Your task to perform on an android device: Open Google Chrome and open the bookmarks view Image 0: 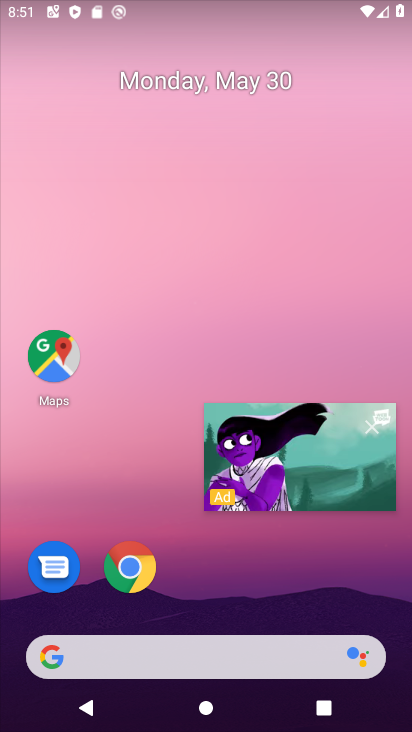
Step 0: click (369, 426)
Your task to perform on an android device: Open Google Chrome and open the bookmarks view Image 1: 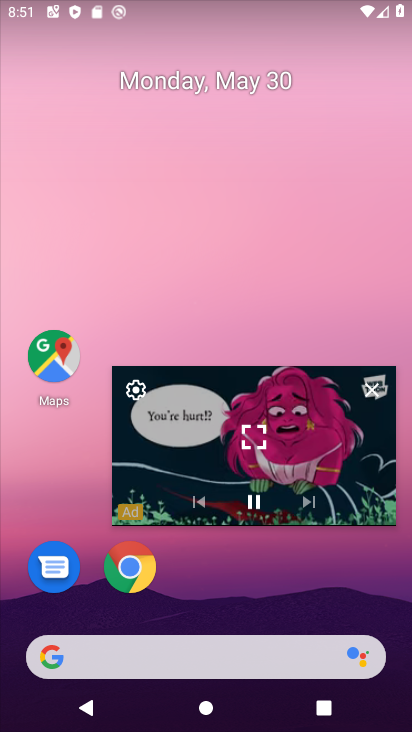
Step 1: click (375, 384)
Your task to perform on an android device: Open Google Chrome and open the bookmarks view Image 2: 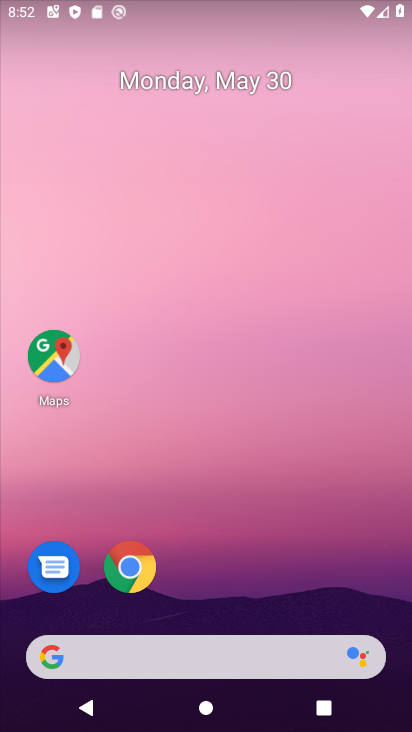
Step 2: click (124, 563)
Your task to perform on an android device: Open Google Chrome and open the bookmarks view Image 3: 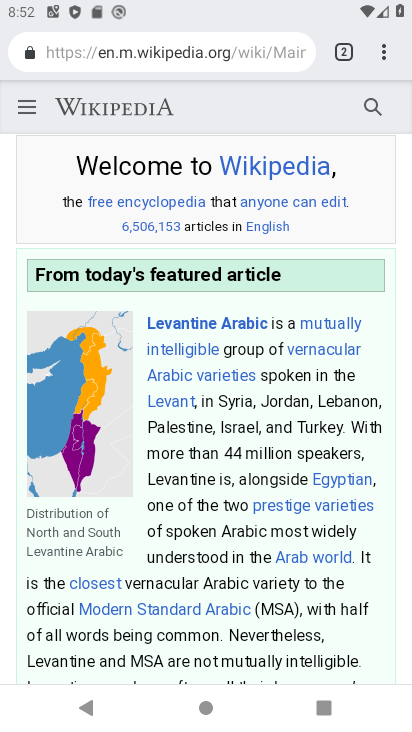
Step 3: click (386, 53)
Your task to perform on an android device: Open Google Chrome and open the bookmarks view Image 4: 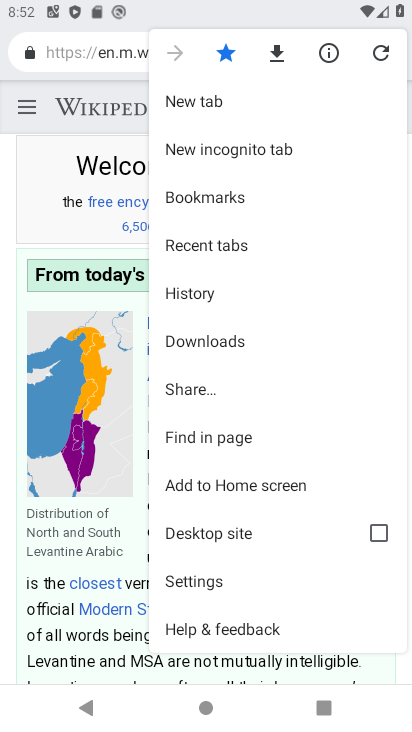
Step 4: click (220, 187)
Your task to perform on an android device: Open Google Chrome and open the bookmarks view Image 5: 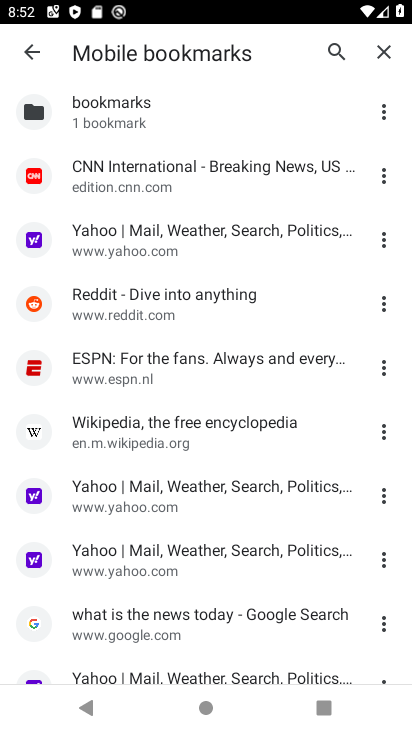
Step 5: task complete